Your task to perform on an android device: set an alarm Image 0: 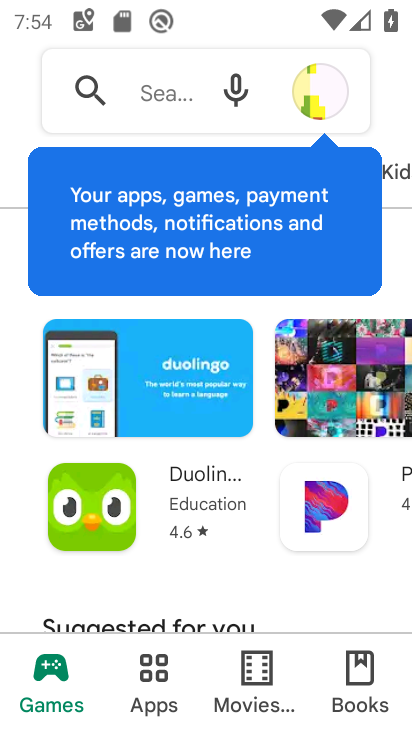
Step 0: press home button
Your task to perform on an android device: set an alarm Image 1: 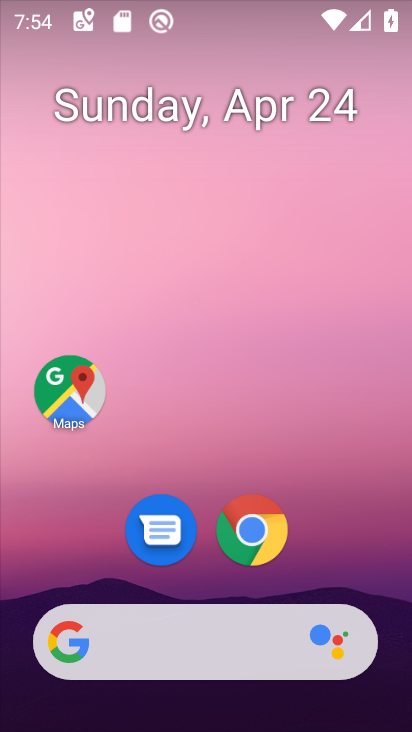
Step 1: drag from (208, 576) to (181, 188)
Your task to perform on an android device: set an alarm Image 2: 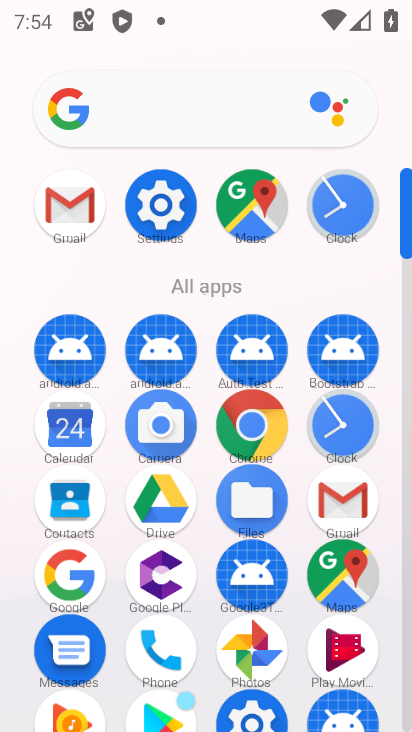
Step 2: click (336, 191)
Your task to perform on an android device: set an alarm Image 3: 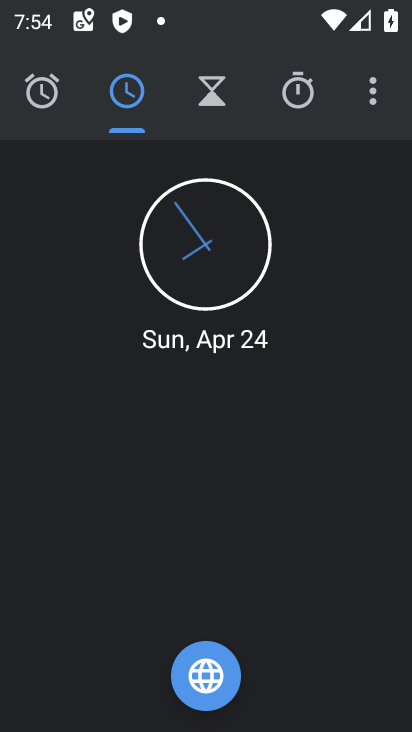
Step 3: click (45, 95)
Your task to perform on an android device: set an alarm Image 4: 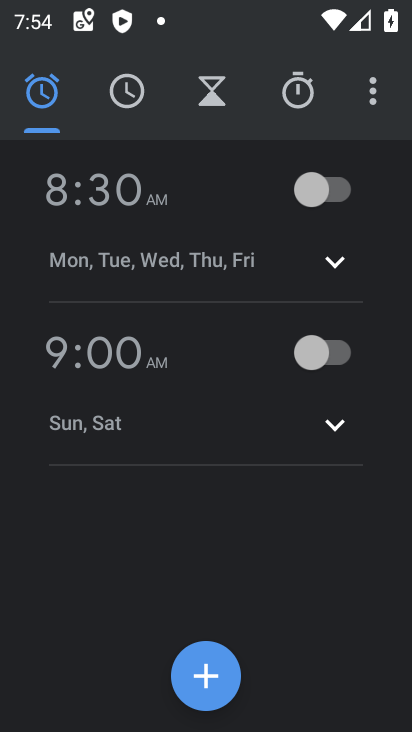
Step 4: click (353, 358)
Your task to perform on an android device: set an alarm Image 5: 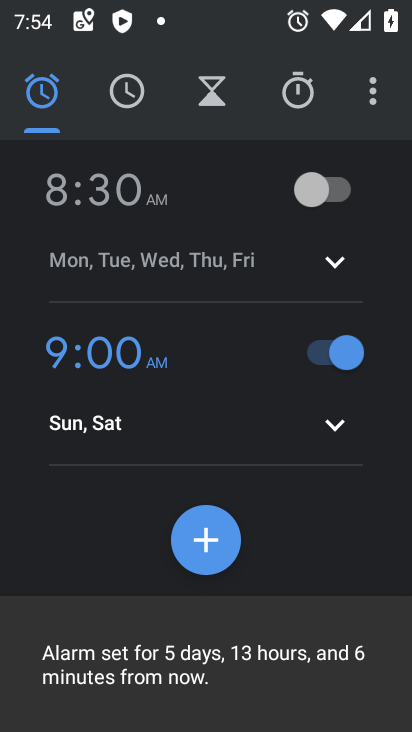
Step 5: task complete